Your task to perform on an android device: Empty the shopping cart on newegg. Add logitech g pro to the cart on newegg, then select checkout. Image 0: 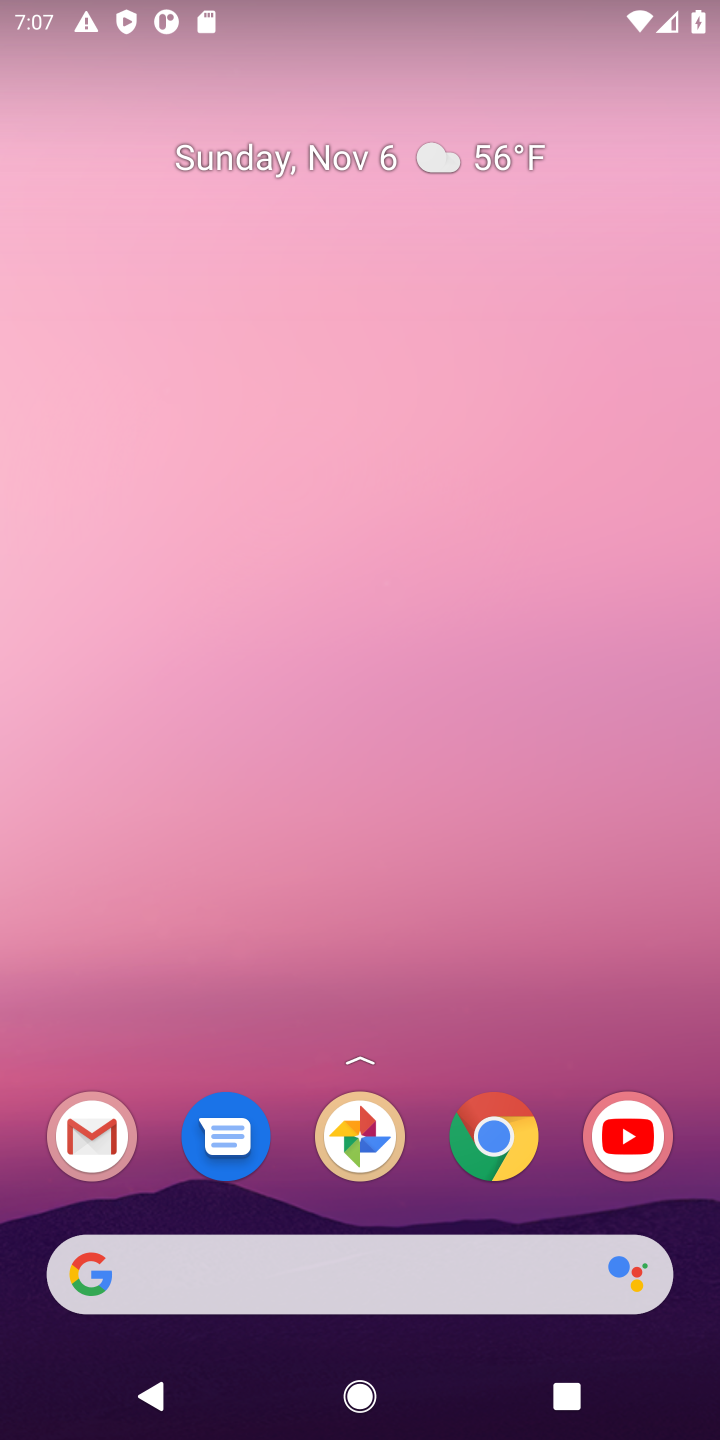
Step 0: click (448, 1258)
Your task to perform on an android device: Empty the shopping cart on newegg. Add logitech g pro to the cart on newegg, then select checkout. Image 1: 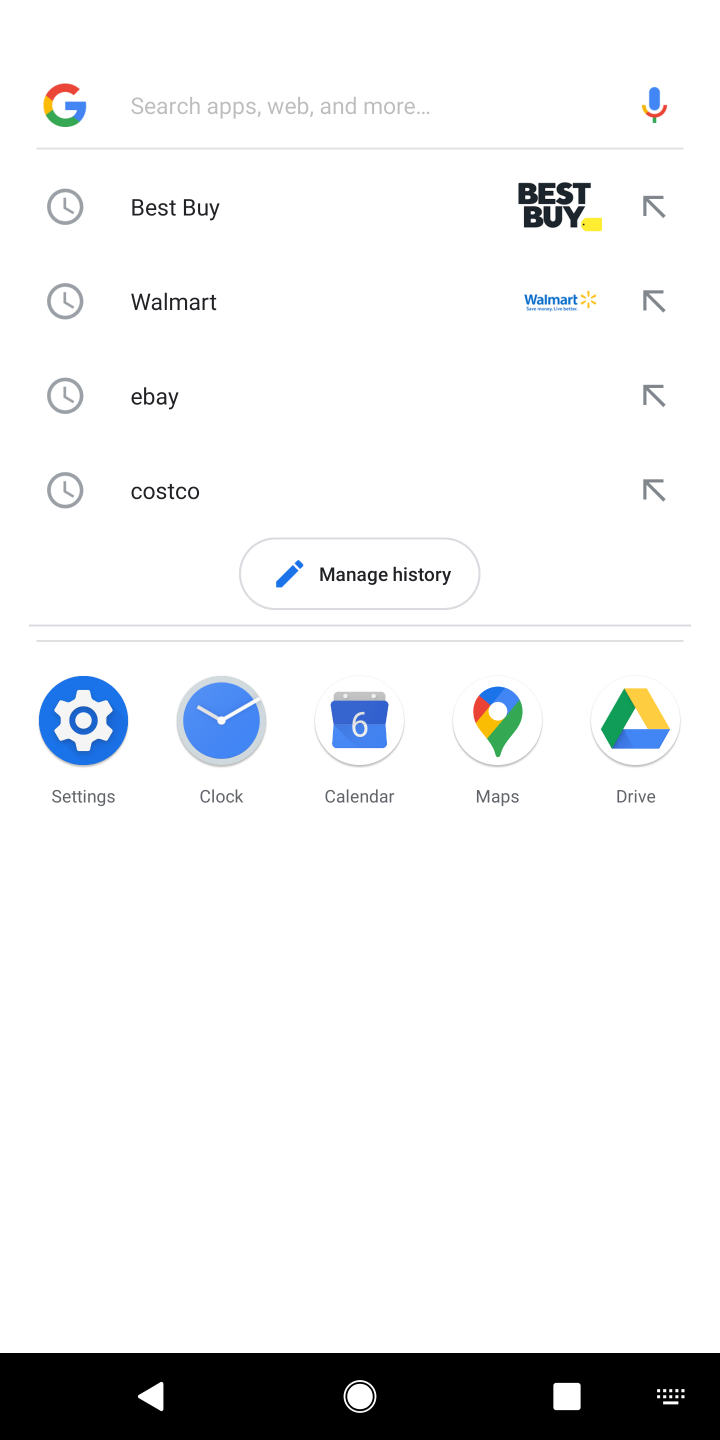
Step 1: type "newegg"
Your task to perform on an android device: Empty the shopping cart on newegg. Add logitech g pro to the cart on newegg, then select checkout. Image 2: 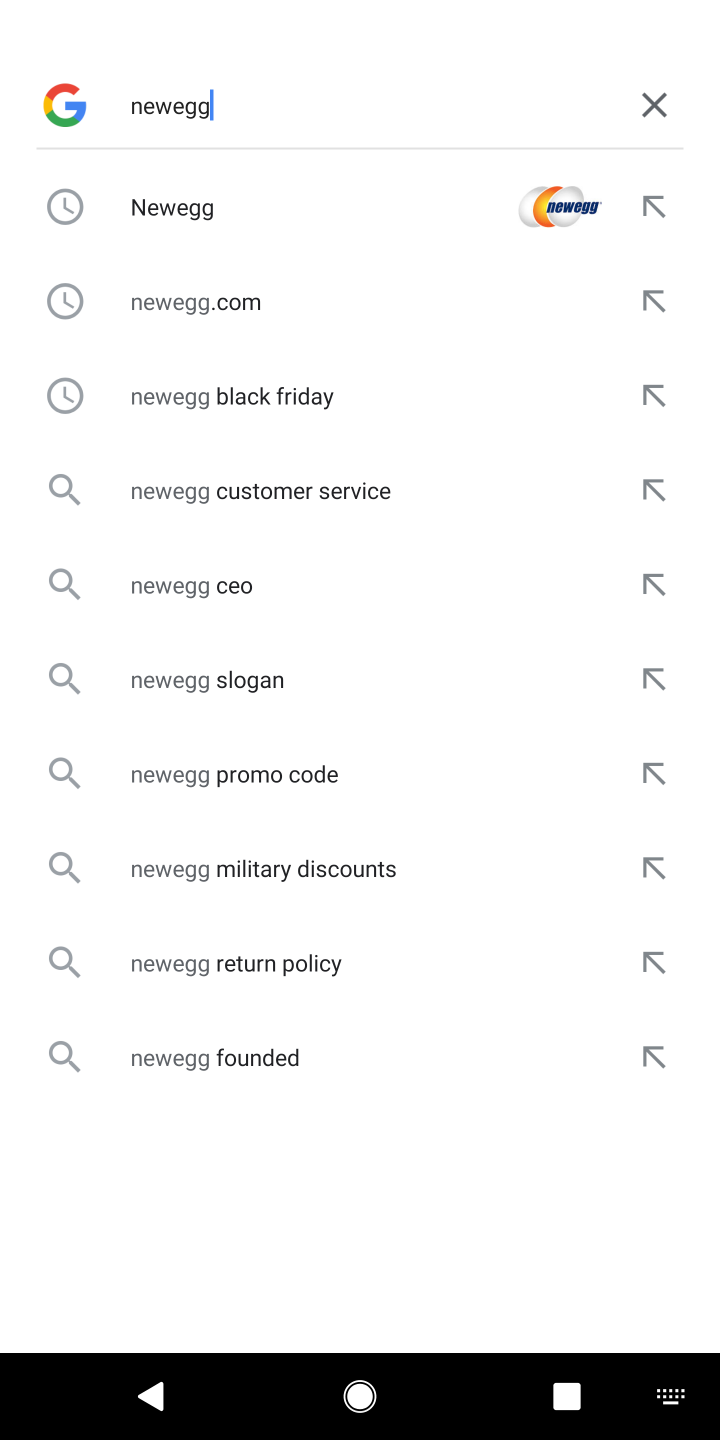
Step 2: click (200, 212)
Your task to perform on an android device: Empty the shopping cart on newegg. Add logitech g pro to the cart on newegg, then select checkout. Image 3: 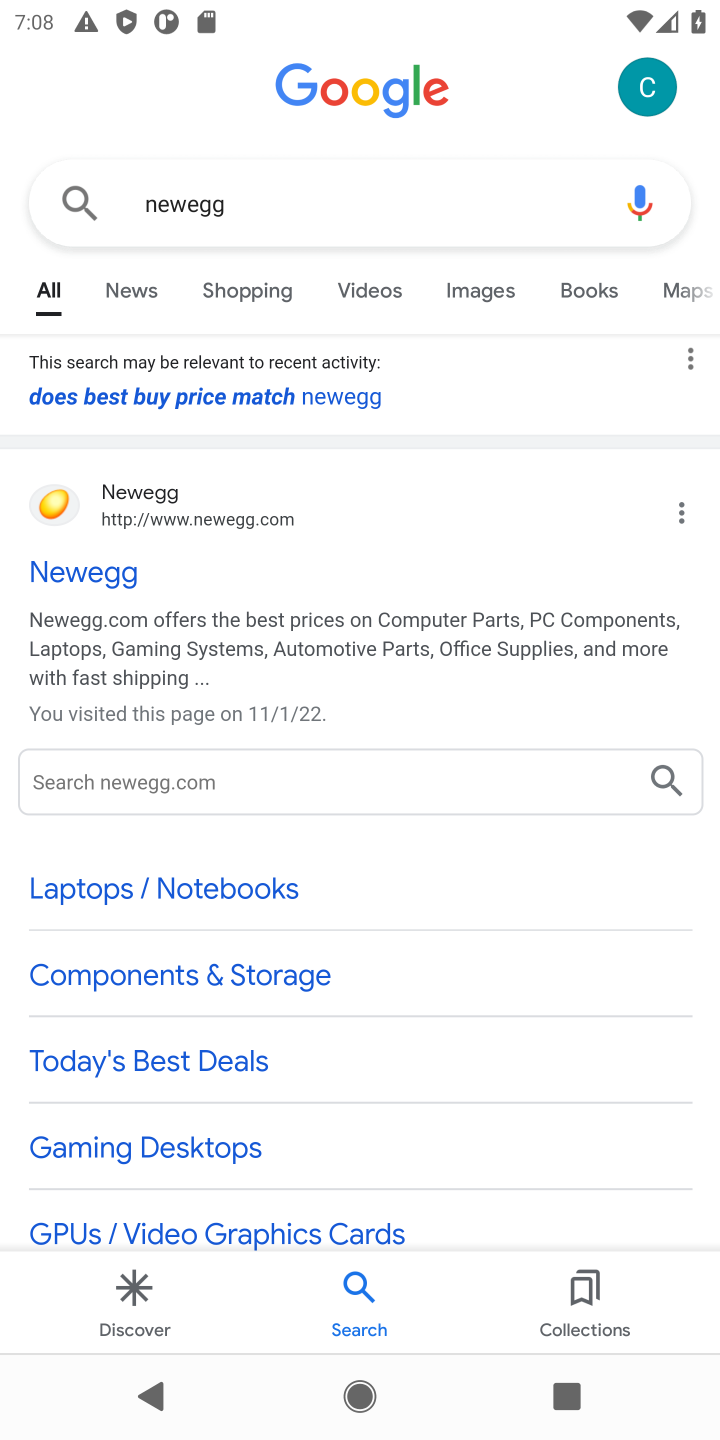
Step 3: click (133, 577)
Your task to perform on an android device: Empty the shopping cart on newegg. Add logitech g pro to the cart on newegg, then select checkout. Image 4: 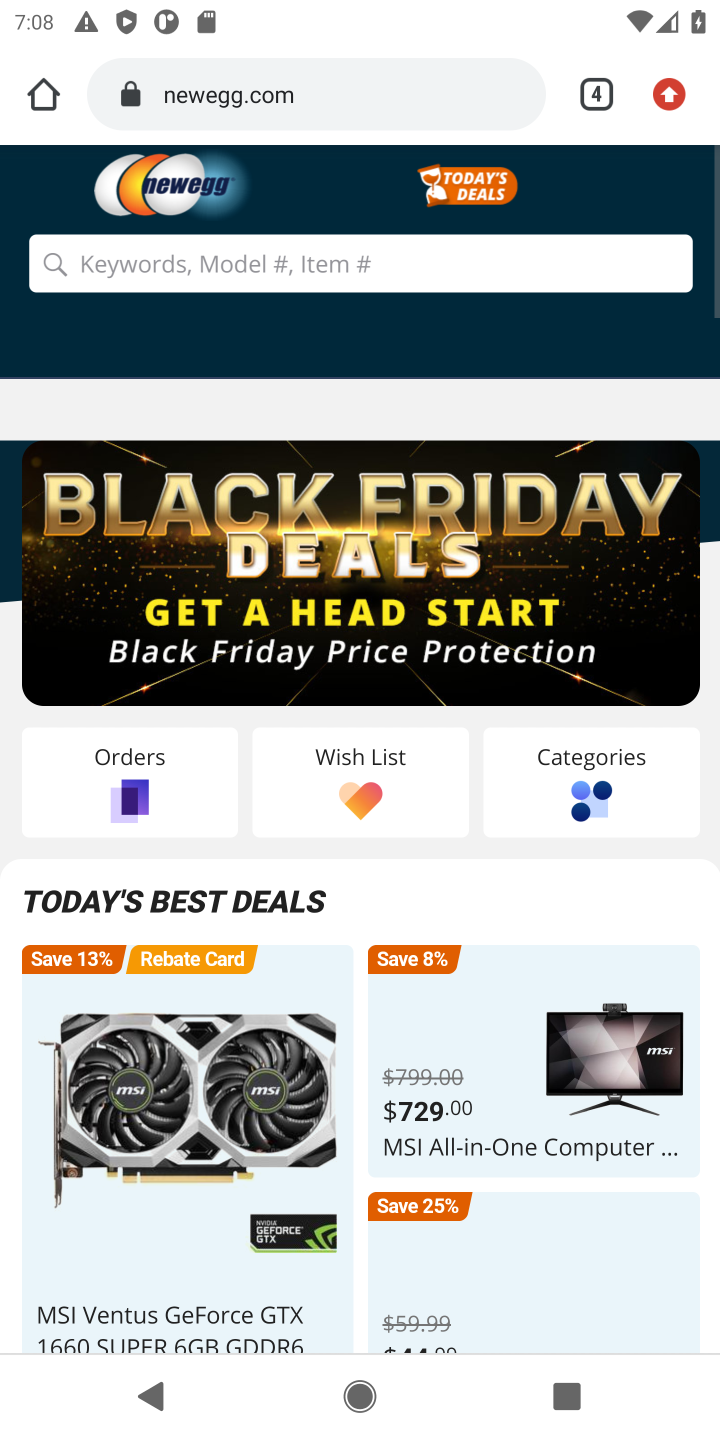
Step 4: click (301, 282)
Your task to perform on an android device: Empty the shopping cart on newegg. Add logitech g pro to the cart on newegg, then select checkout. Image 5: 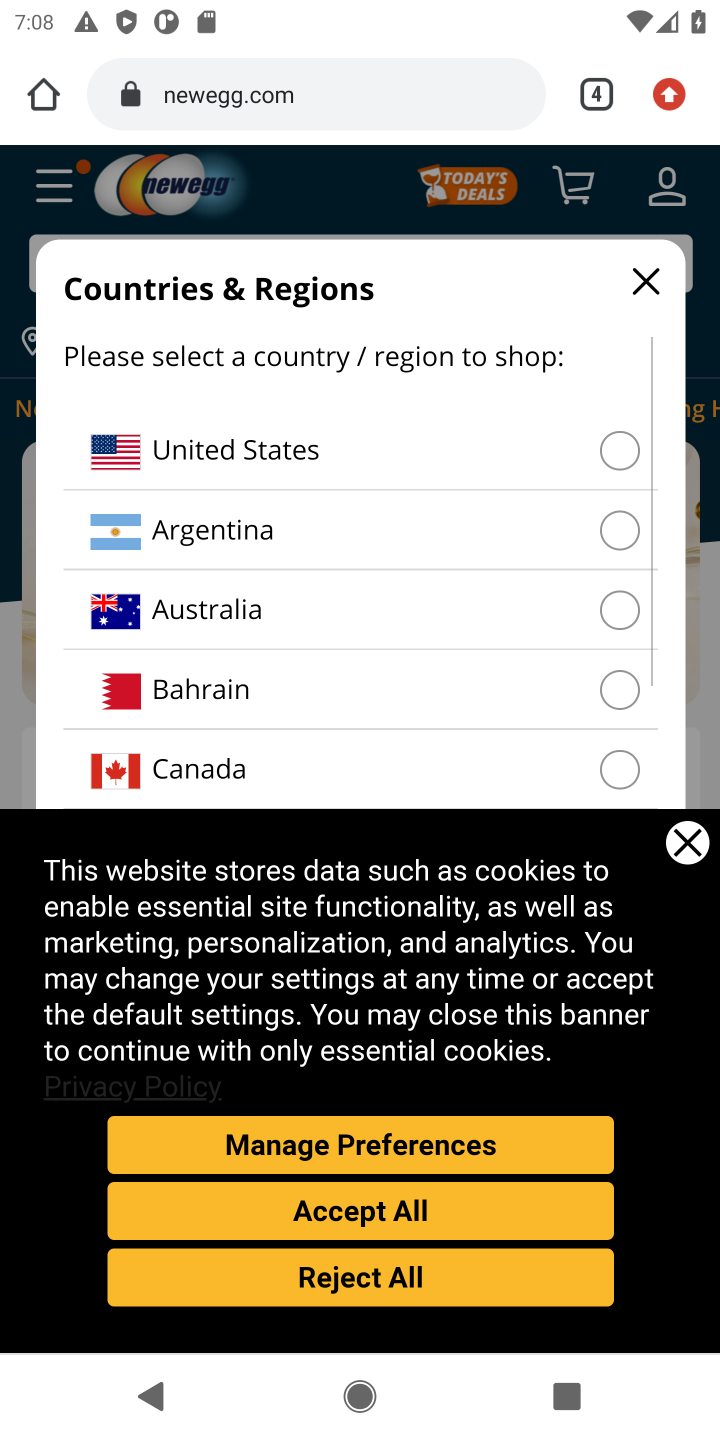
Step 5: click (603, 477)
Your task to perform on an android device: Empty the shopping cart on newegg. Add logitech g pro to the cart on newegg, then select checkout. Image 6: 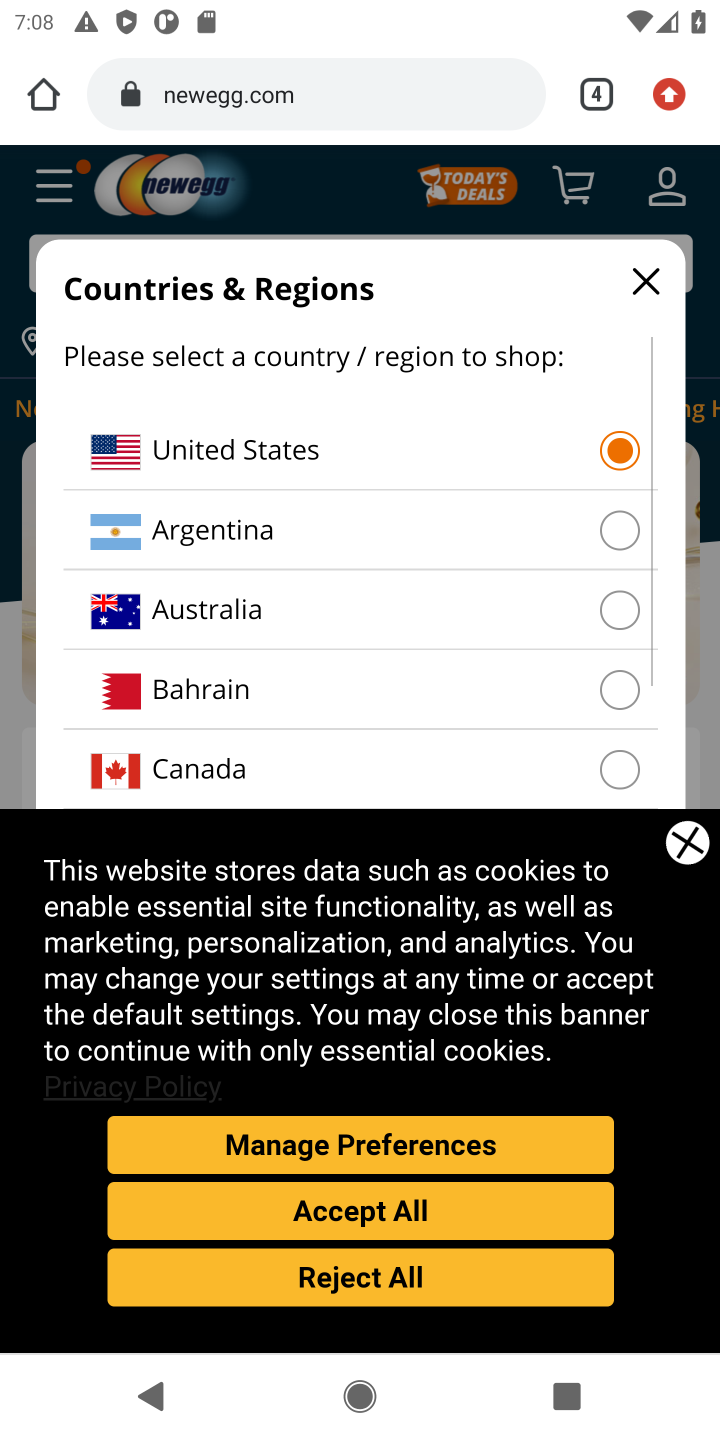
Step 6: click (538, 1203)
Your task to perform on an android device: Empty the shopping cart on newegg. Add logitech g pro to the cart on newegg, then select checkout. Image 7: 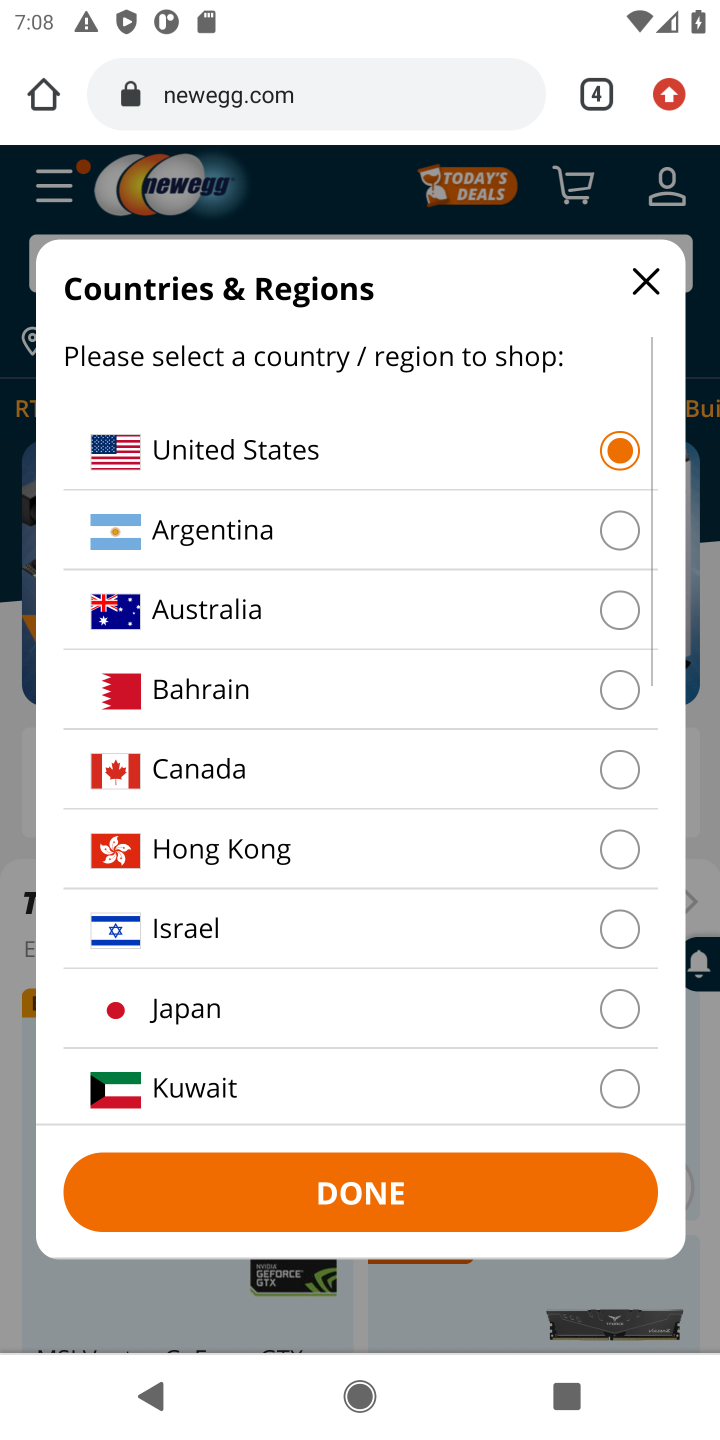
Step 7: click (461, 1169)
Your task to perform on an android device: Empty the shopping cart on newegg. Add logitech g pro to the cart on newegg, then select checkout. Image 8: 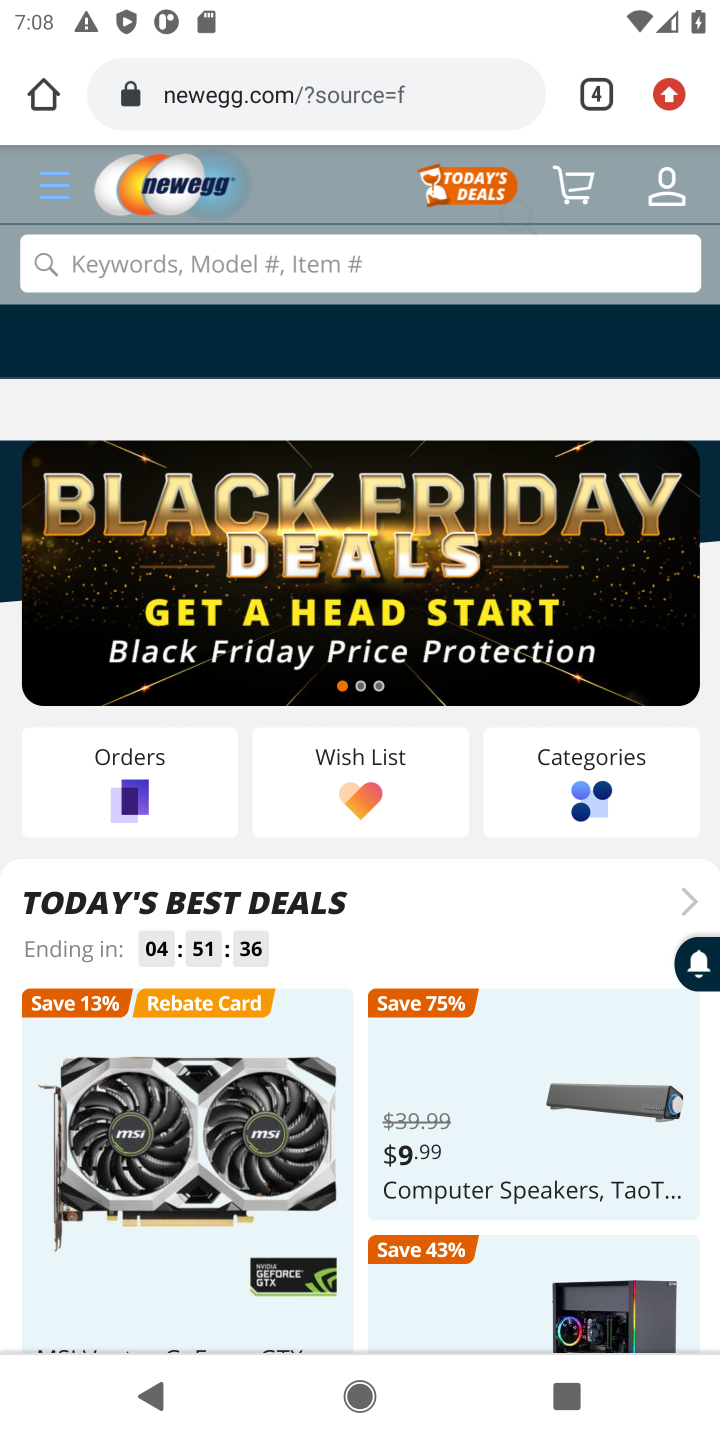
Step 8: click (397, 263)
Your task to perform on an android device: Empty the shopping cart on newegg. Add logitech g pro to the cart on newegg, then select checkout. Image 9: 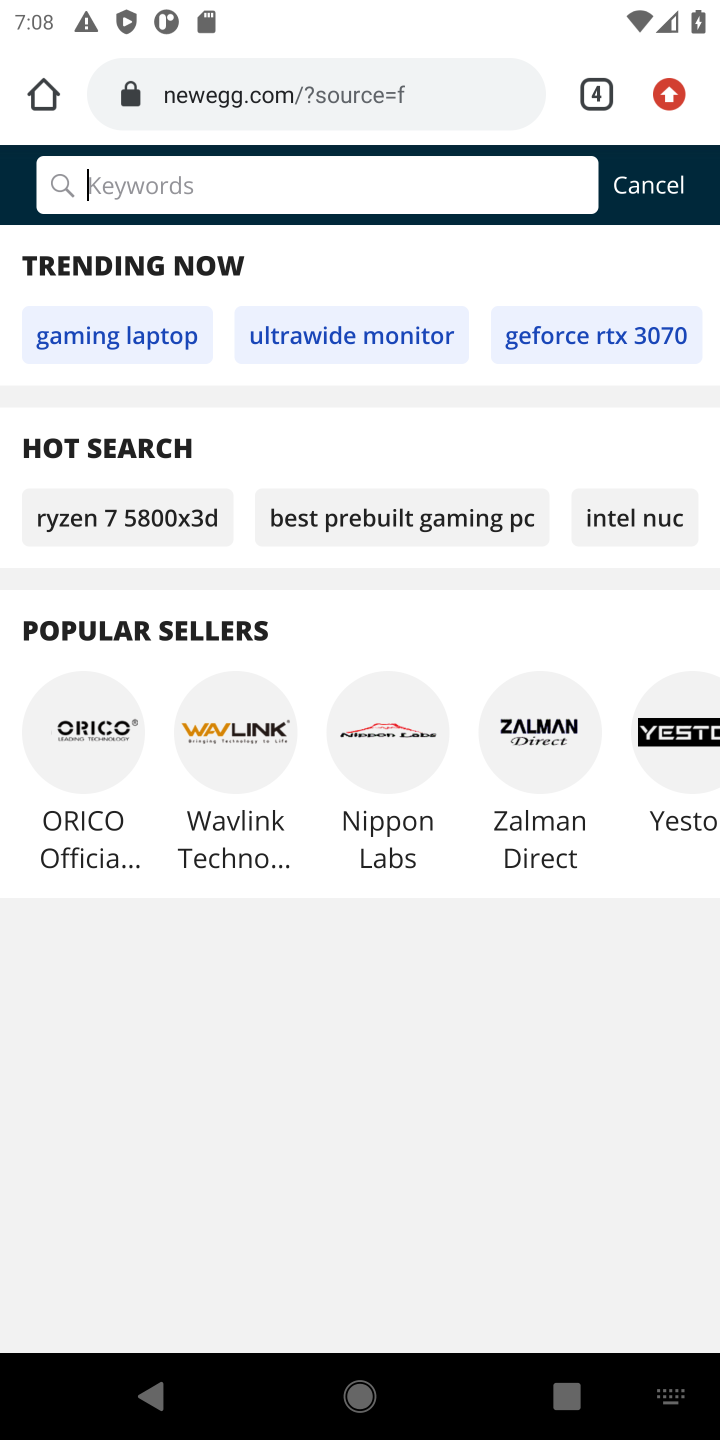
Step 9: type "logitech g pro"
Your task to perform on an android device: Empty the shopping cart on newegg. Add logitech g pro to the cart on newegg, then select checkout. Image 10: 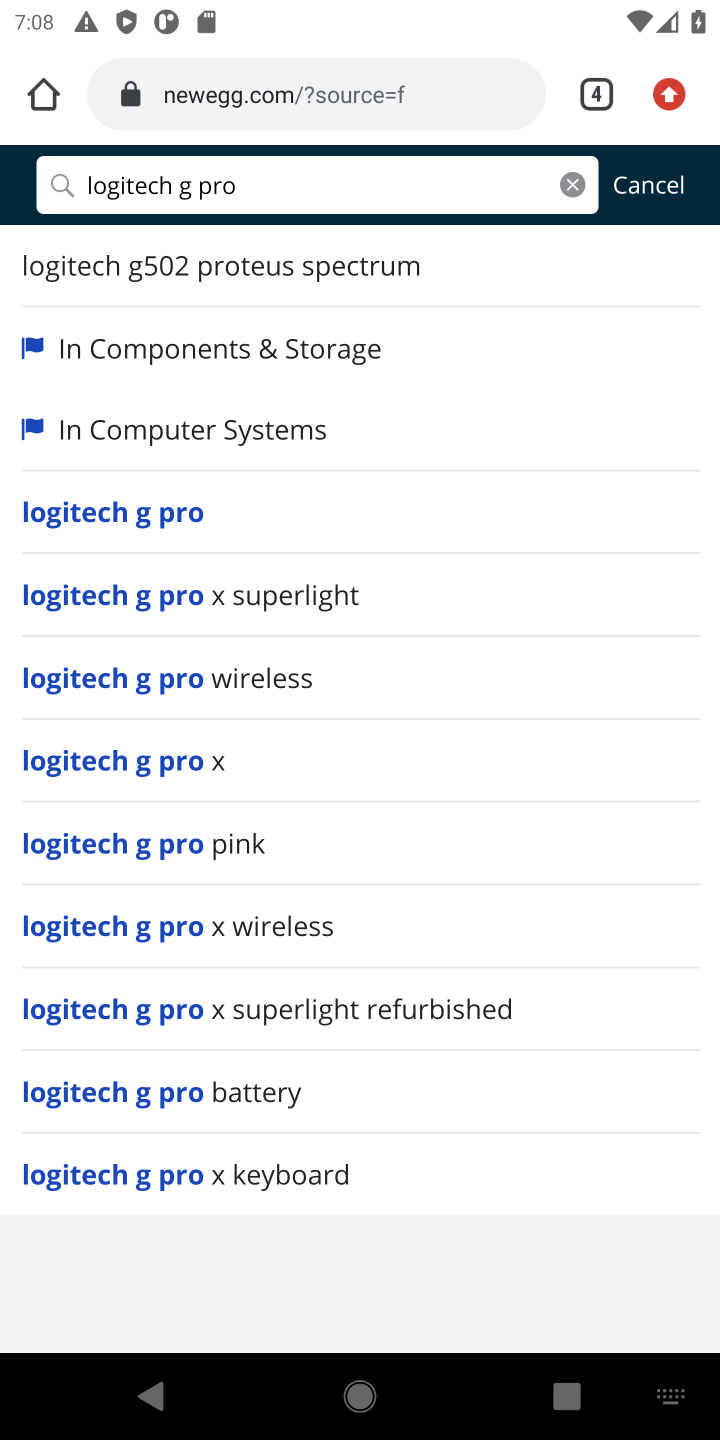
Step 10: click (157, 502)
Your task to perform on an android device: Empty the shopping cart on newegg. Add logitech g pro to the cart on newegg, then select checkout. Image 11: 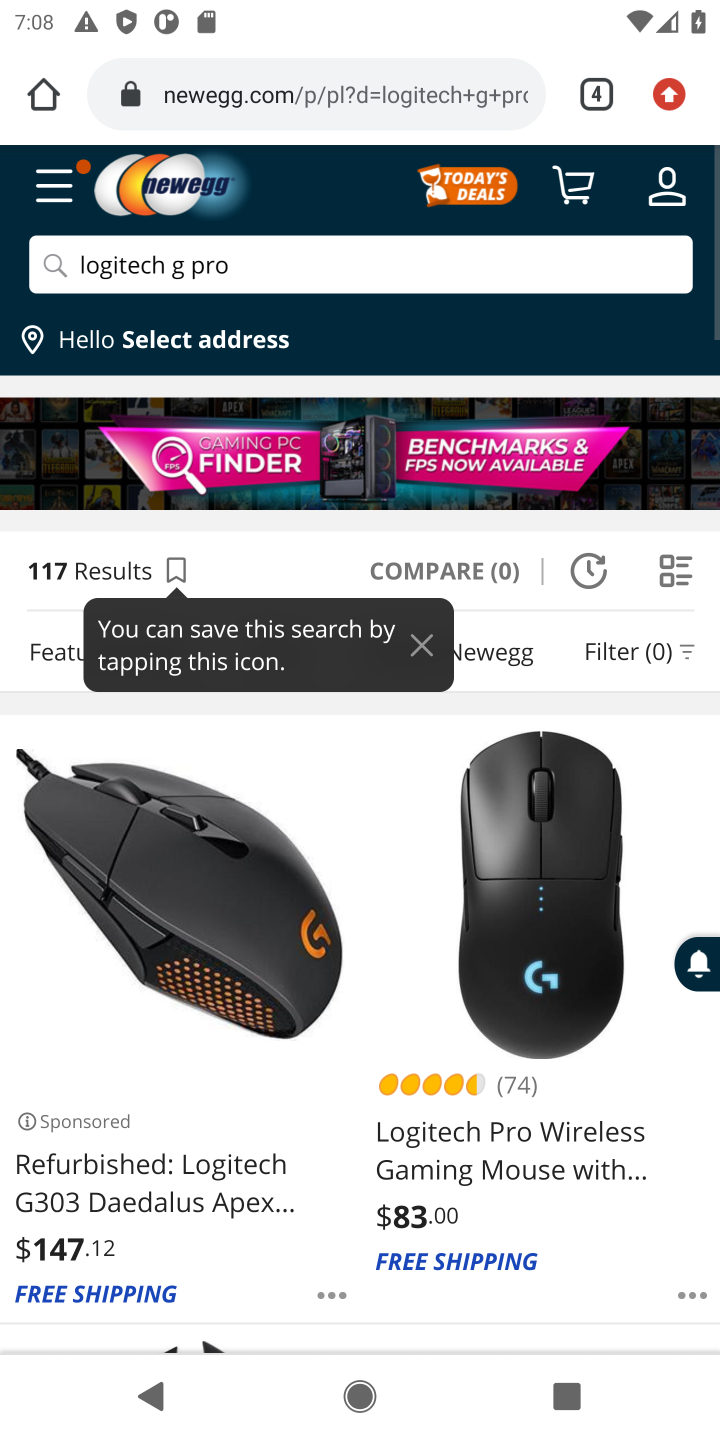
Step 11: click (410, 1160)
Your task to perform on an android device: Empty the shopping cart on newegg. Add logitech g pro to the cart on newegg, then select checkout. Image 12: 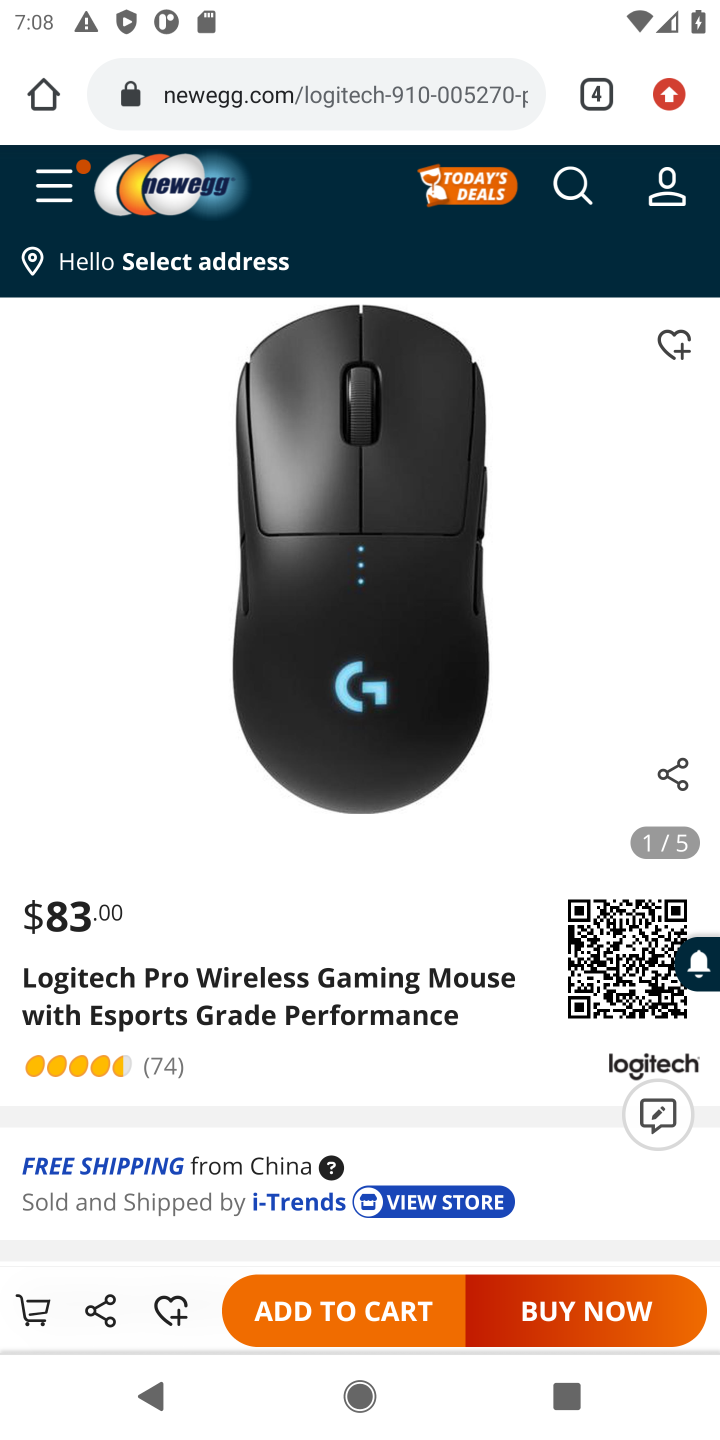
Step 12: click (329, 1315)
Your task to perform on an android device: Empty the shopping cart on newegg. Add logitech g pro to the cart on newegg, then select checkout. Image 13: 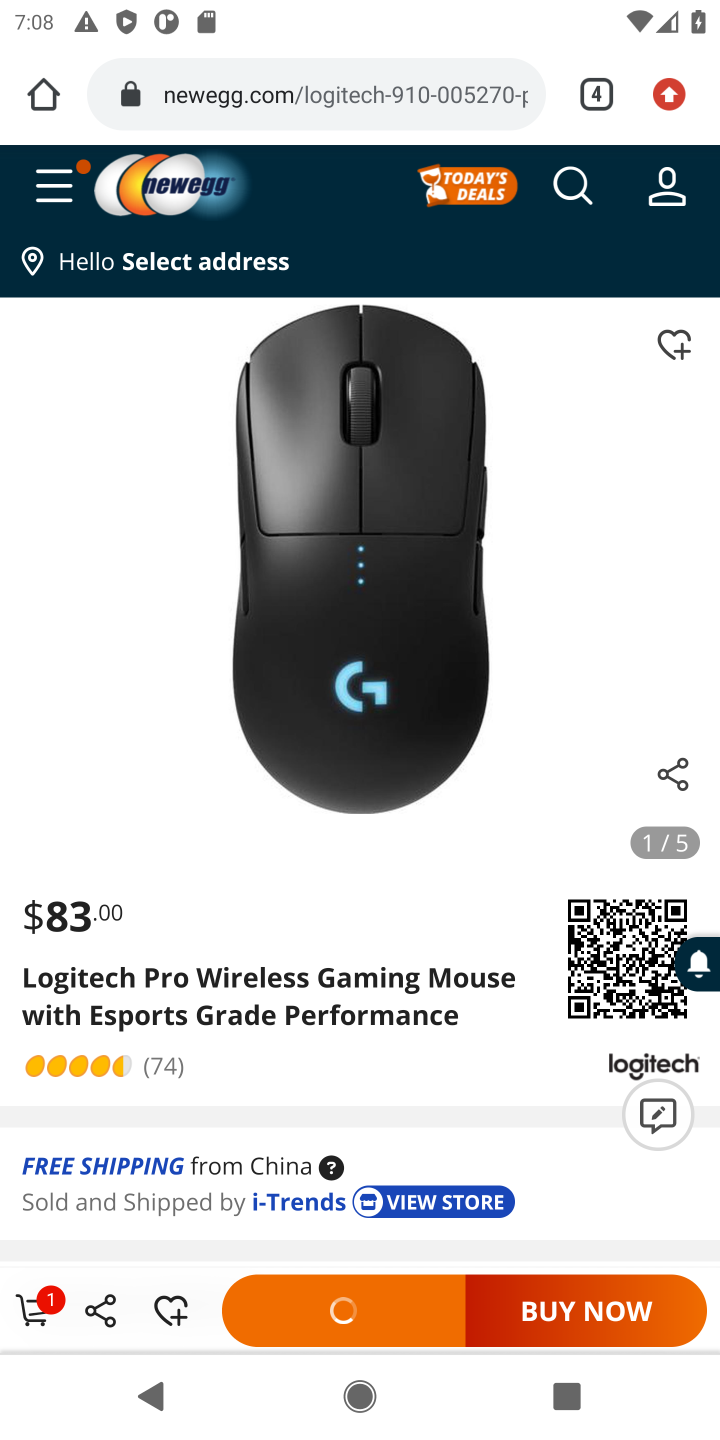
Step 13: task complete